Your task to perform on an android device: turn pop-ups on in chrome Image 0: 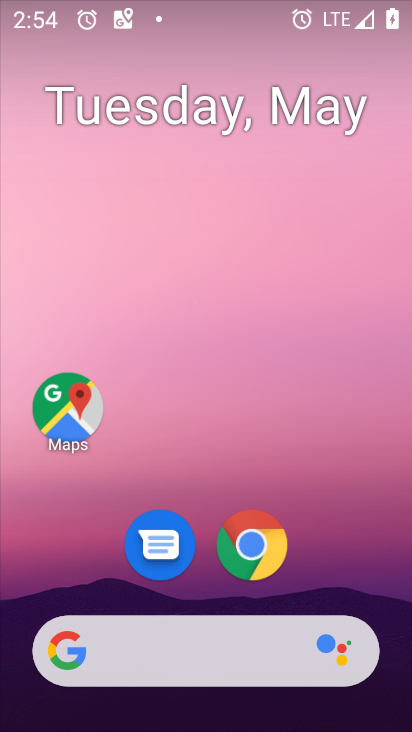
Step 0: drag from (329, 468) to (260, 17)
Your task to perform on an android device: turn pop-ups on in chrome Image 1: 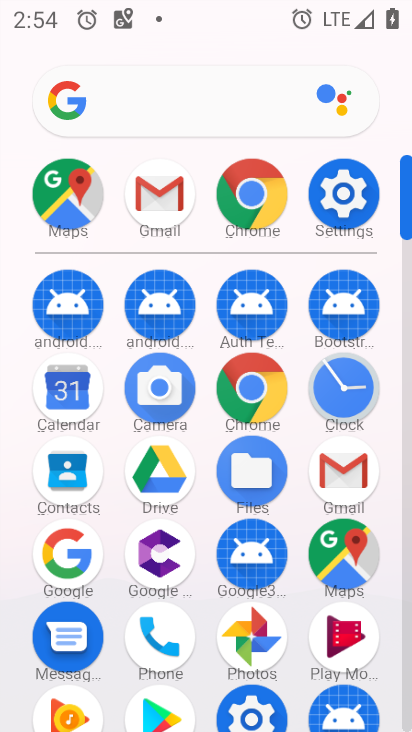
Step 1: drag from (10, 523) to (29, 184)
Your task to perform on an android device: turn pop-ups on in chrome Image 2: 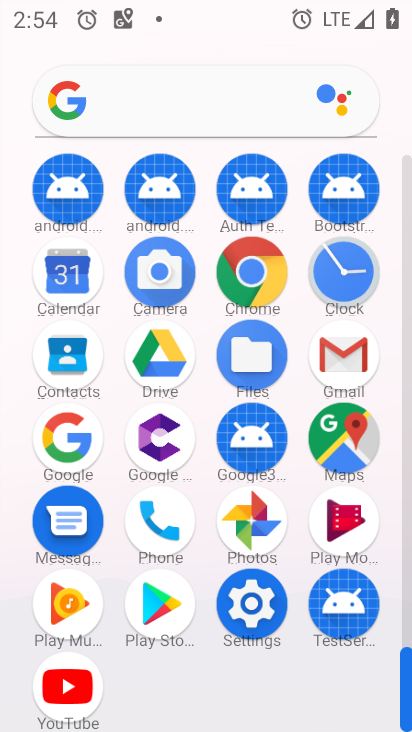
Step 2: click (247, 274)
Your task to perform on an android device: turn pop-ups on in chrome Image 3: 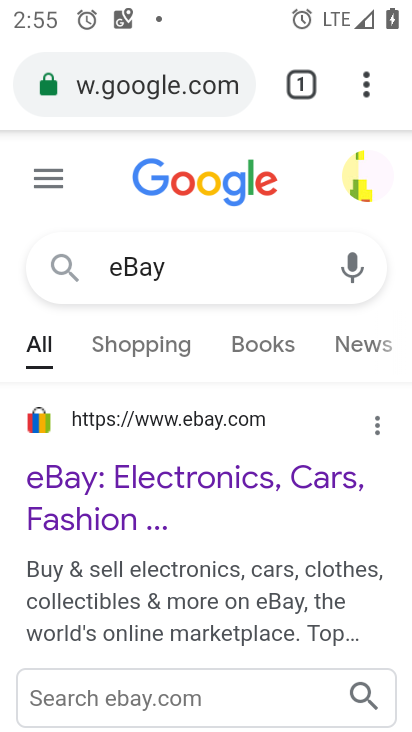
Step 3: drag from (364, 72) to (151, 596)
Your task to perform on an android device: turn pop-ups on in chrome Image 4: 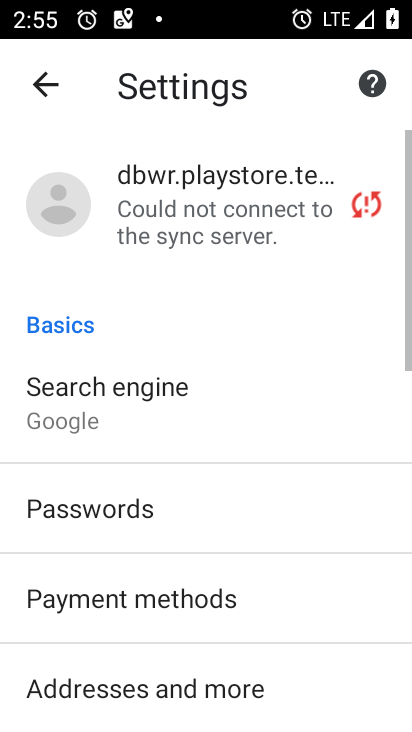
Step 4: drag from (224, 588) to (253, 219)
Your task to perform on an android device: turn pop-ups on in chrome Image 5: 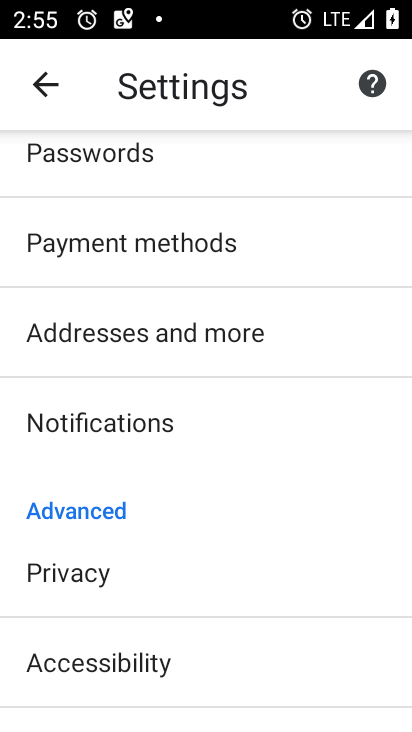
Step 5: drag from (219, 594) to (264, 196)
Your task to perform on an android device: turn pop-ups on in chrome Image 6: 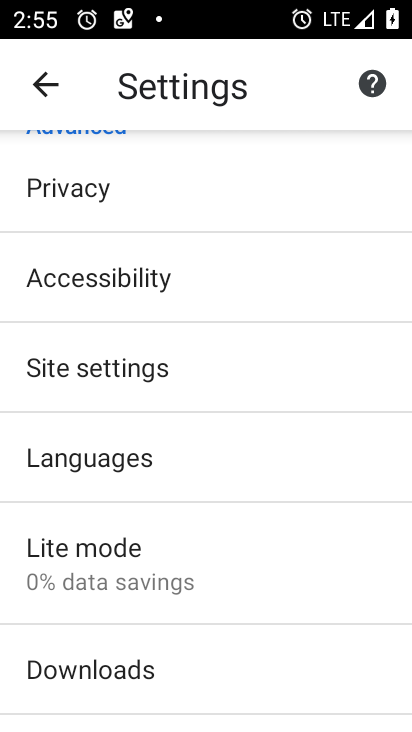
Step 6: drag from (215, 499) to (244, 256)
Your task to perform on an android device: turn pop-ups on in chrome Image 7: 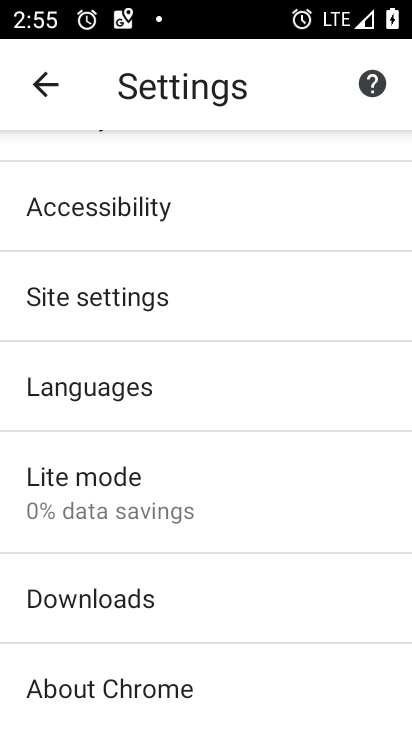
Step 7: click (147, 306)
Your task to perform on an android device: turn pop-ups on in chrome Image 8: 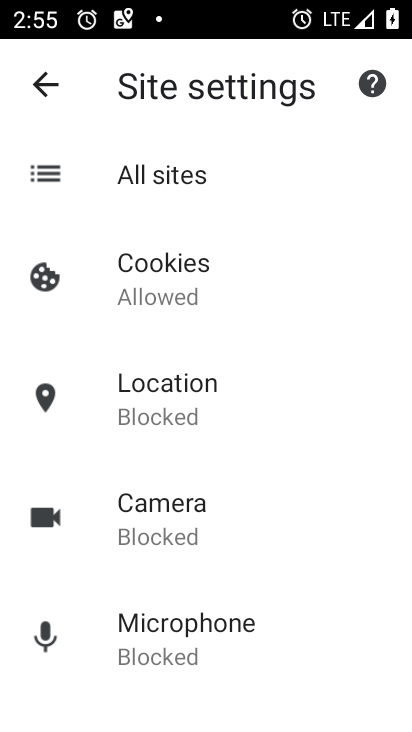
Step 8: drag from (208, 511) to (197, 178)
Your task to perform on an android device: turn pop-ups on in chrome Image 9: 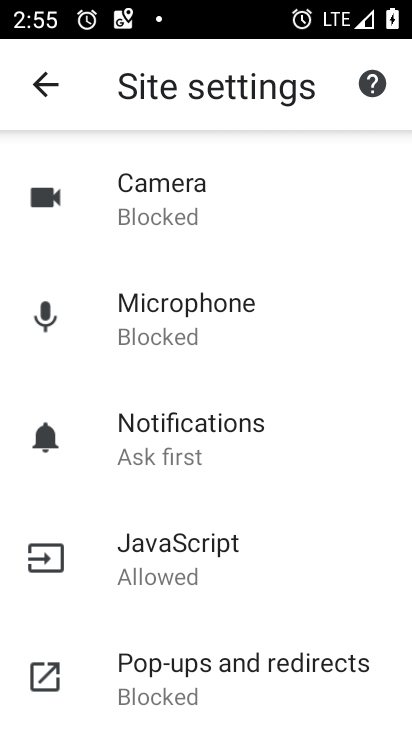
Step 9: click (237, 667)
Your task to perform on an android device: turn pop-ups on in chrome Image 10: 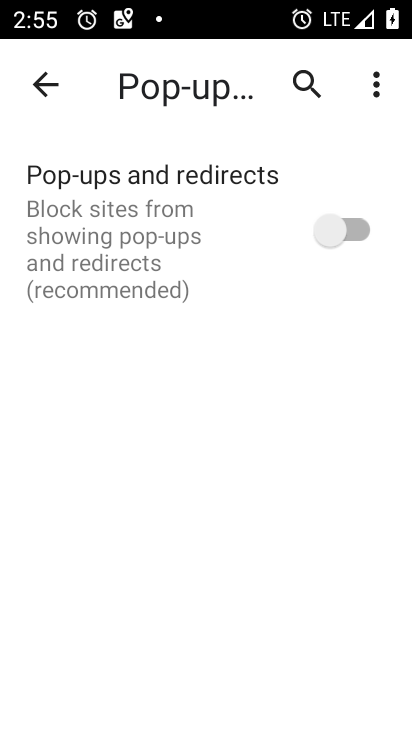
Step 10: click (344, 223)
Your task to perform on an android device: turn pop-ups on in chrome Image 11: 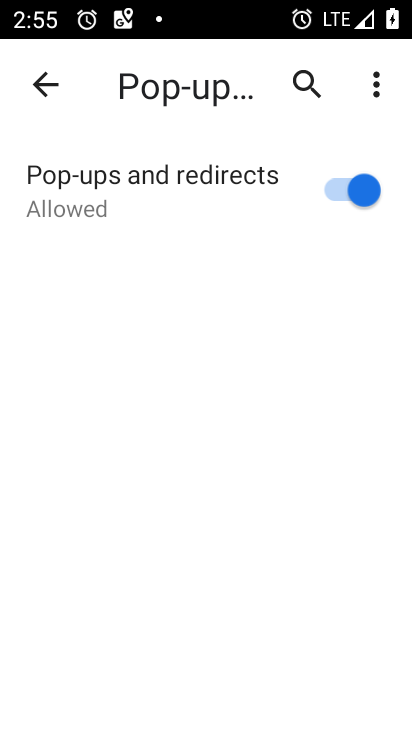
Step 11: task complete